Your task to perform on an android device: turn off priority inbox in the gmail app Image 0: 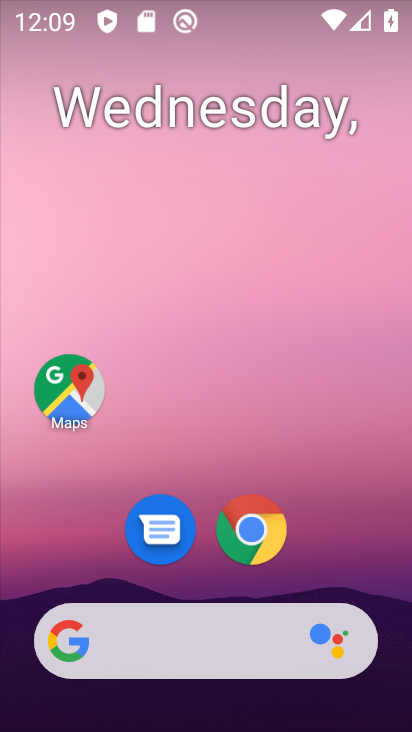
Step 0: drag from (390, 643) to (308, 46)
Your task to perform on an android device: turn off priority inbox in the gmail app Image 1: 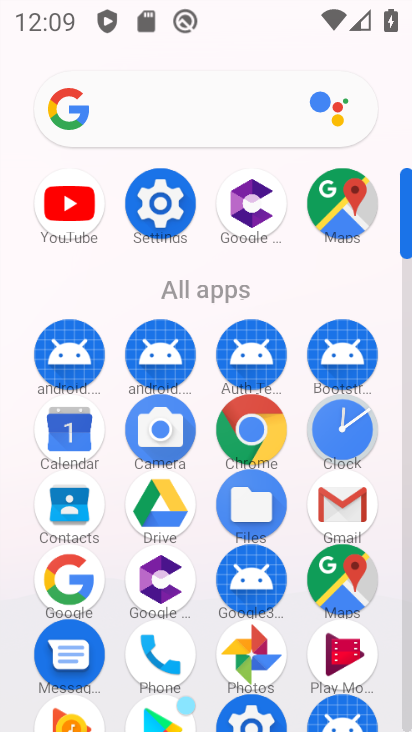
Step 1: click (342, 505)
Your task to perform on an android device: turn off priority inbox in the gmail app Image 2: 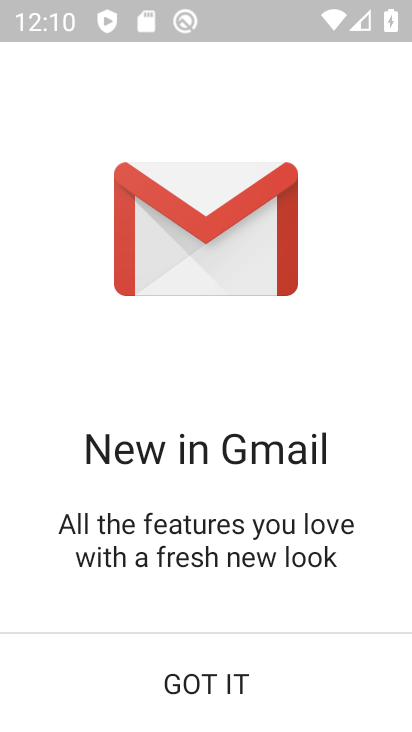
Step 2: click (183, 679)
Your task to perform on an android device: turn off priority inbox in the gmail app Image 3: 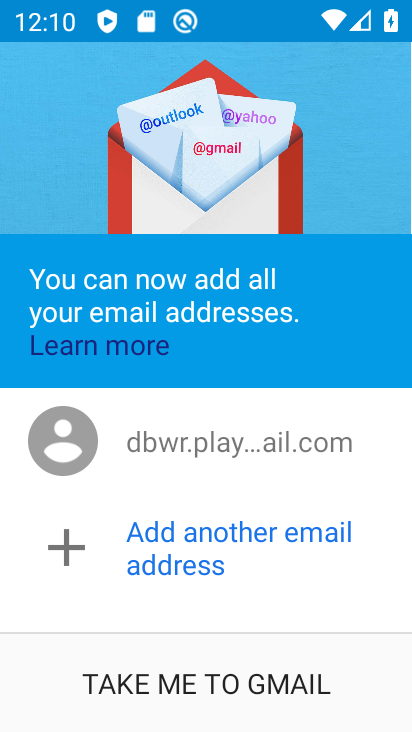
Step 3: click (219, 682)
Your task to perform on an android device: turn off priority inbox in the gmail app Image 4: 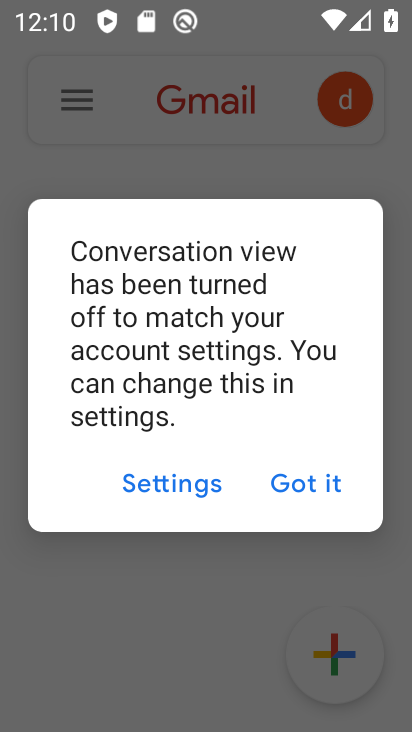
Step 4: click (310, 480)
Your task to perform on an android device: turn off priority inbox in the gmail app Image 5: 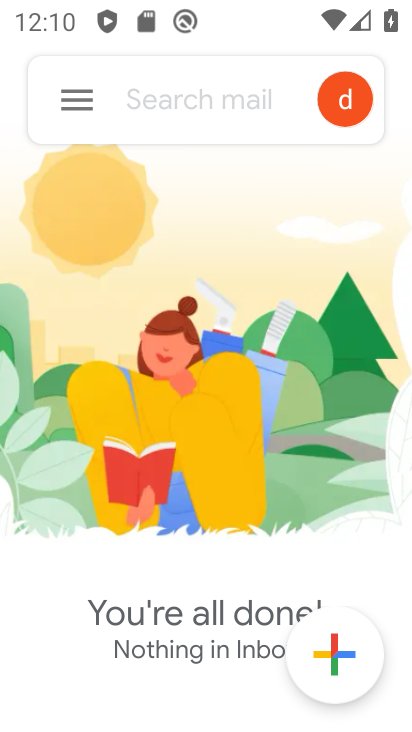
Step 5: click (76, 98)
Your task to perform on an android device: turn off priority inbox in the gmail app Image 6: 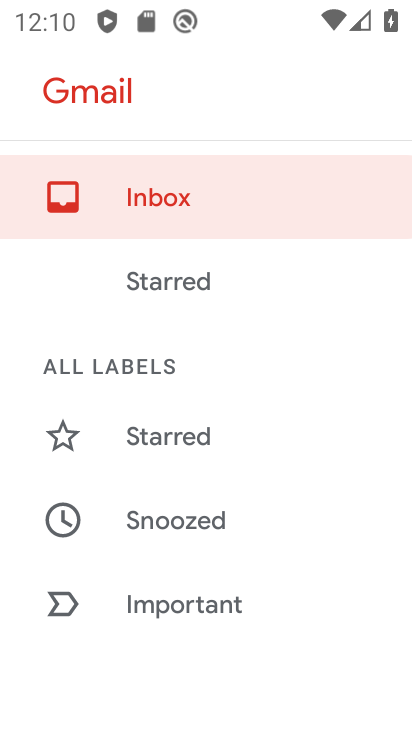
Step 6: drag from (313, 624) to (257, 115)
Your task to perform on an android device: turn off priority inbox in the gmail app Image 7: 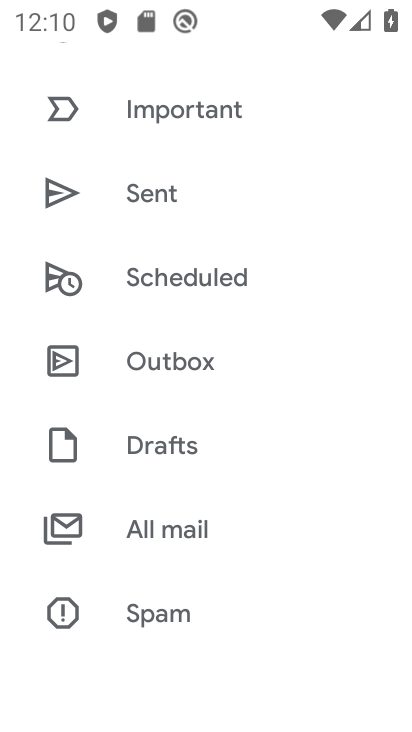
Step 7: drag from (259, 615) to (281, 197)
Your task to perform on an android device: turn off priority inbox in the gmail app Image 8: 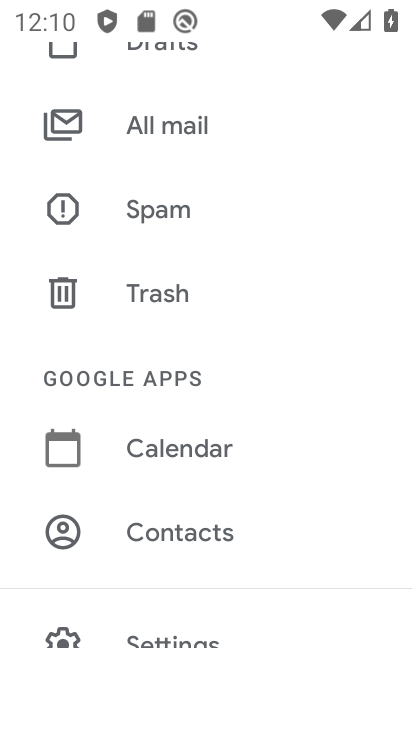
Step 8: drag from (270, 625) to (264, 234)
Your task to perform on an android device: turn off priority inbox in the gmail app Image 9: 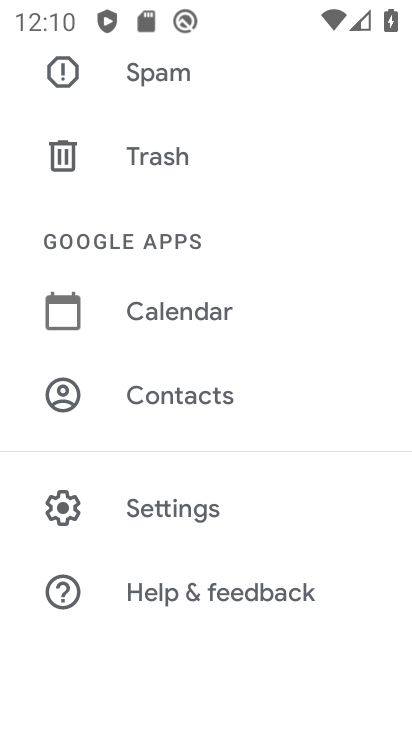
Step 9: click (174, 504)
Your task to perform on an android device: turn off priority inbox in the gmail app Image 10: 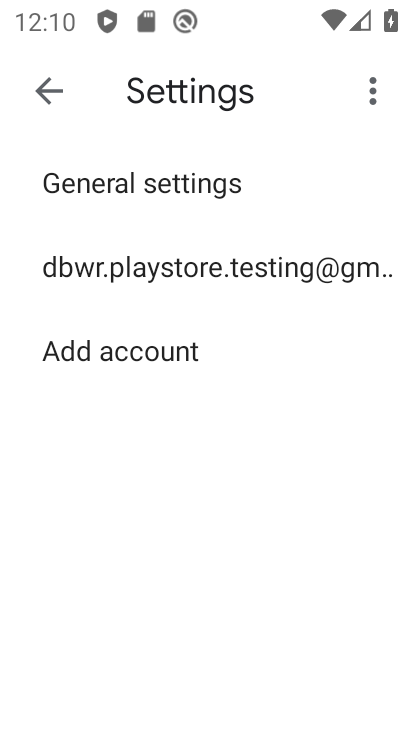
Step 10: click (195, 266)
Your task to perform on an android device: turn off priority inbox in the gmail app Image 11: 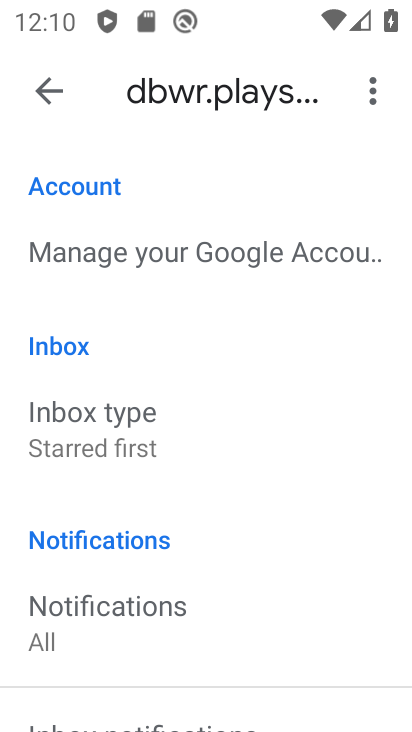
Step 11: click (98, 439)
Your task to perform on an android device: turn off priority inbox in the gmail app Image 12: 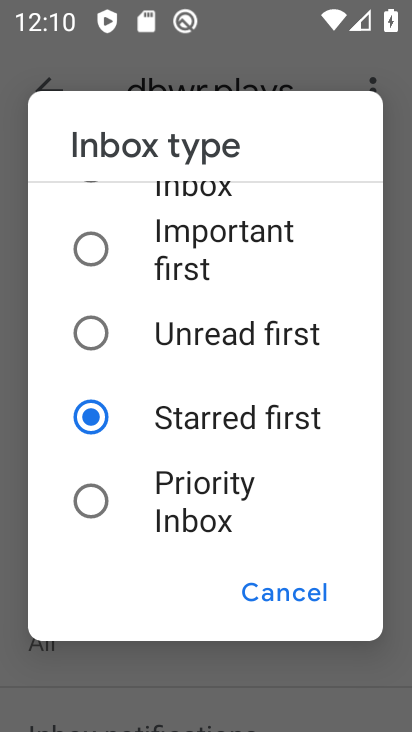
Step 12: task complete